Your task to perform on an android device: Open ESPN.com Image 0: 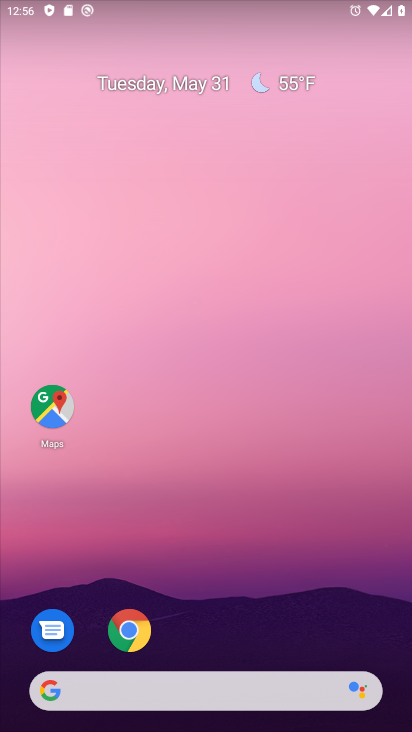
Step 0: drag from (289, 623) to (392, 149)
Your task to perform on an android device: Open ESPN.com Image 1: 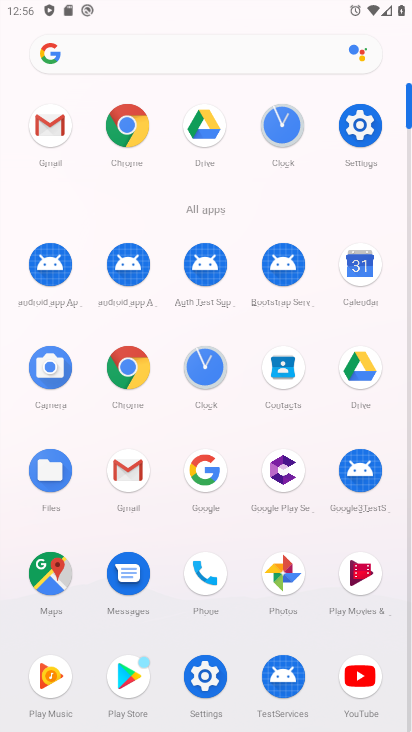
Step 1: click (205, 470)
Your task to perform on an android device: Open ESPN.com Image 2: 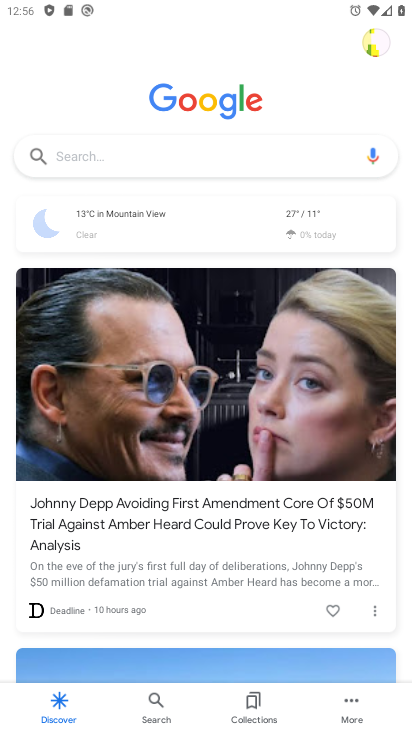
Step 2: click (141, 159)
Your task to perform on an android device: Open ESPN.com Image 3: 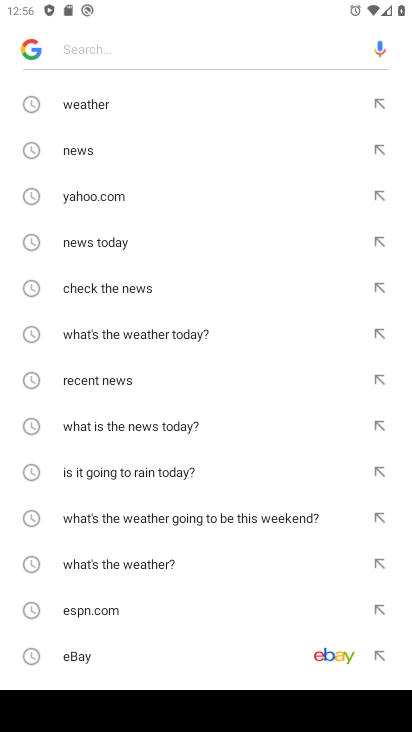
Step 3: click (98, 614)
Your task to perform on an android device: Open ESPN.com Image 4: 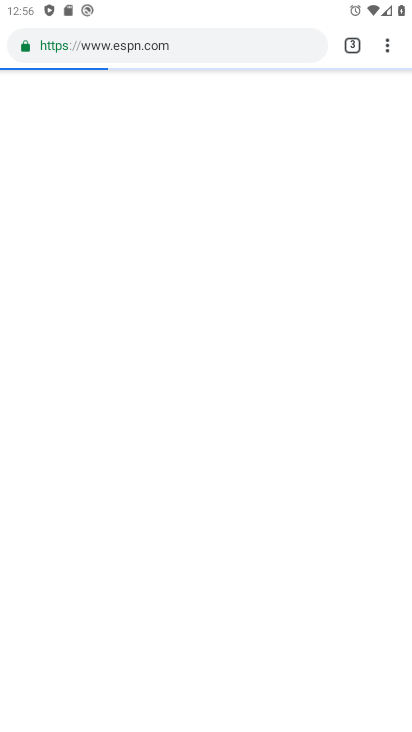
Step 4: task complete